Your task to perform on an android device: Play the last video I watched on Youtube Image 0: 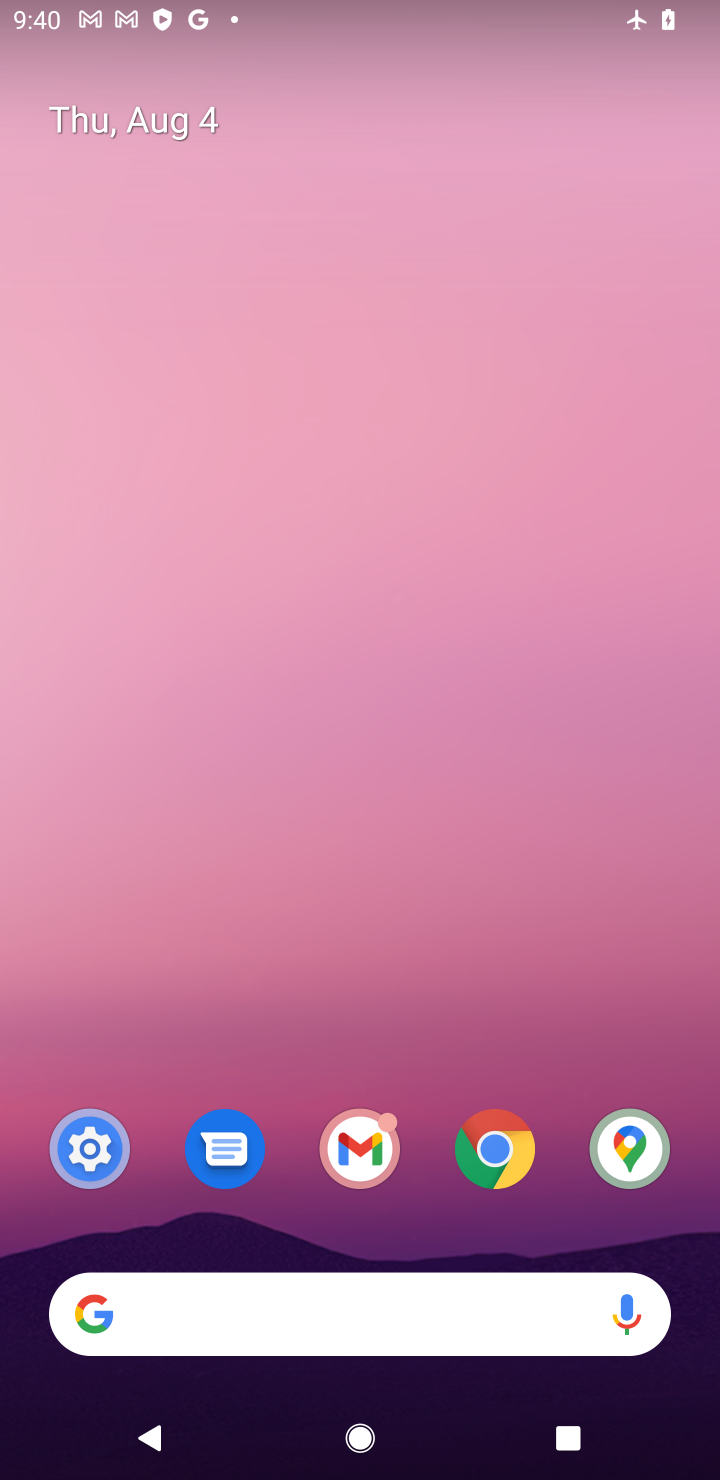
Step 0: drag from (555, 1154) to (586, 211)
Your task to perform on an android device: Play the last video I watched on Youtube Image 1: 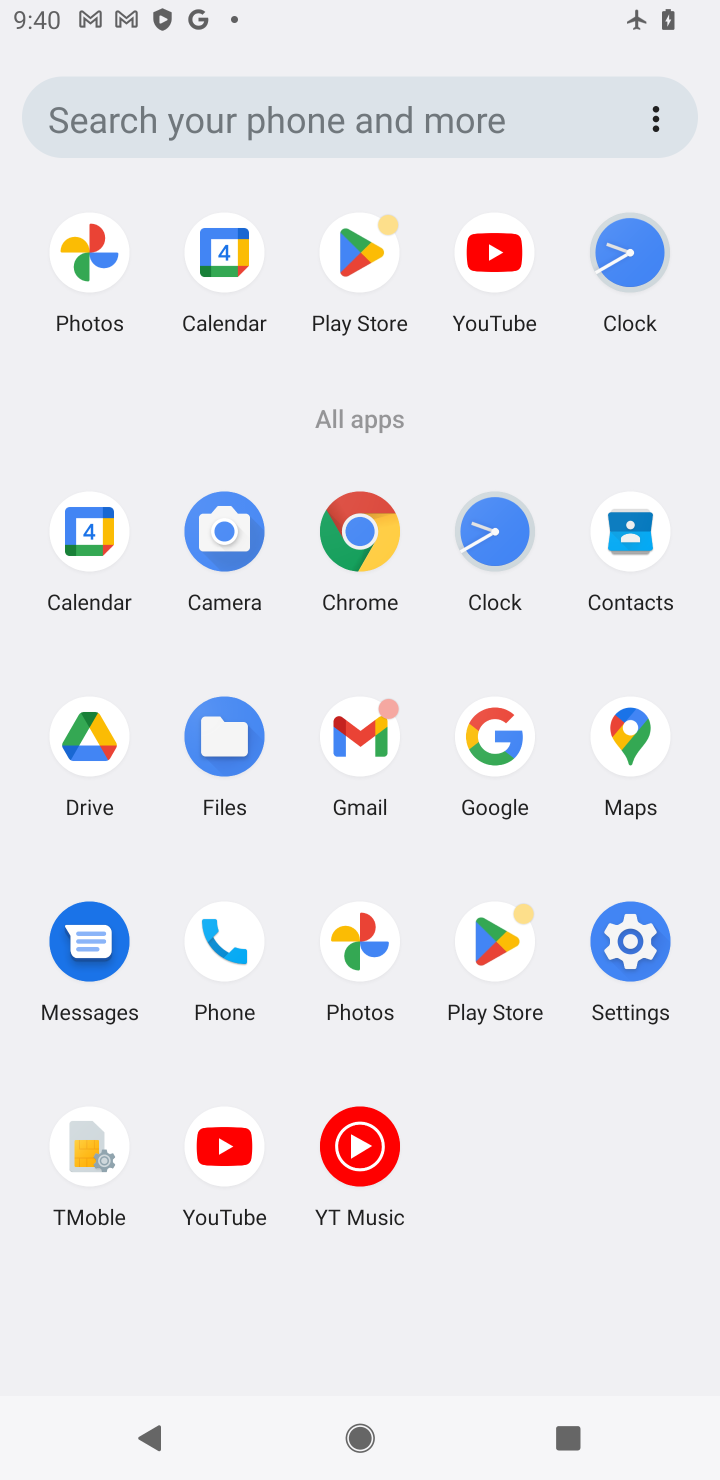
Step 1: click (225, 1147)
Your task to perform on an android device: Play the last video I watched on Youtube Image 2: 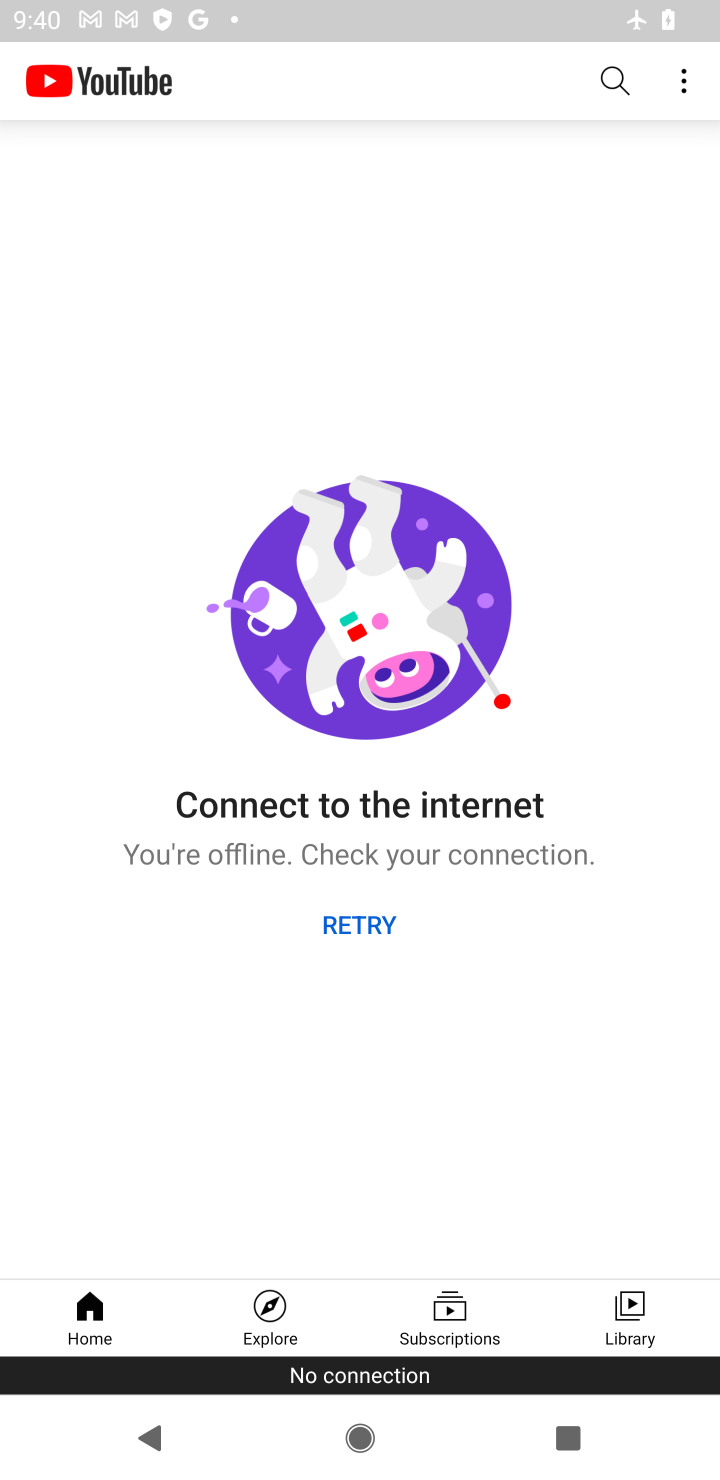
Step 2: click (621, 1326)
Your task to perform on an android device: Play the last video I watched on Youtube Image 3: 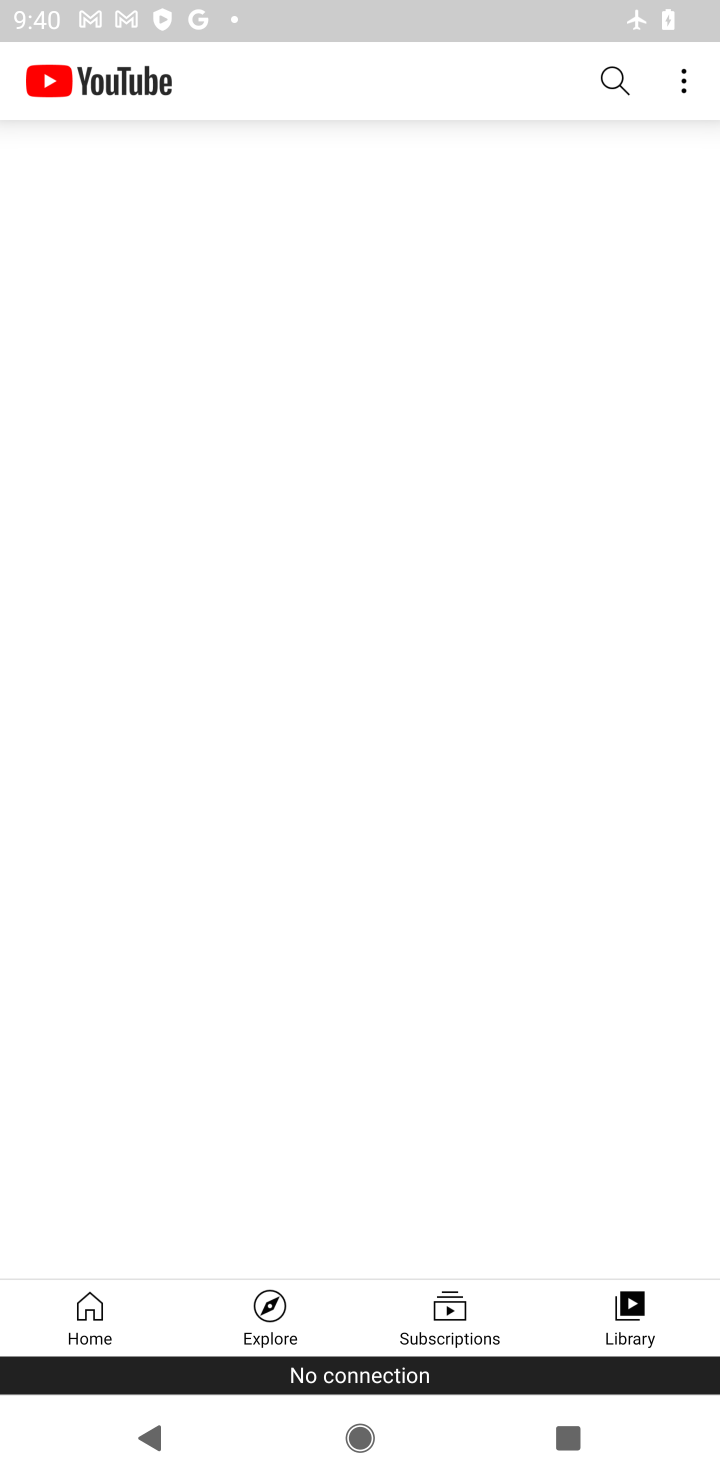
Step 3: task complete